Your task to perform on an android device: Show me popular videos on Youtube Image 0: 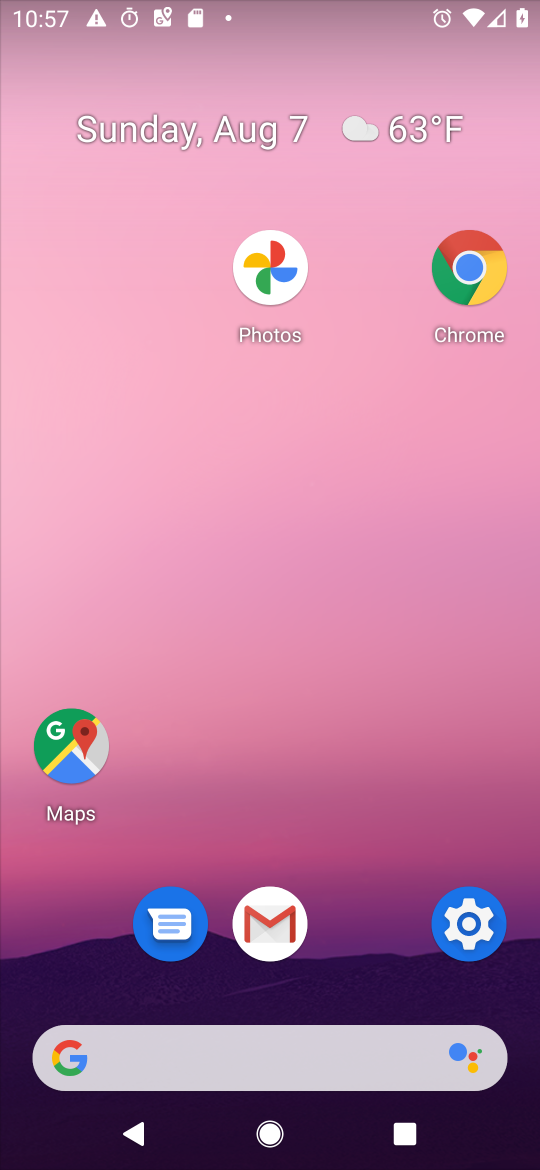
Step 0: press home button
Your task to perform on an android device: Show me popular videos on Youtube Image 1: 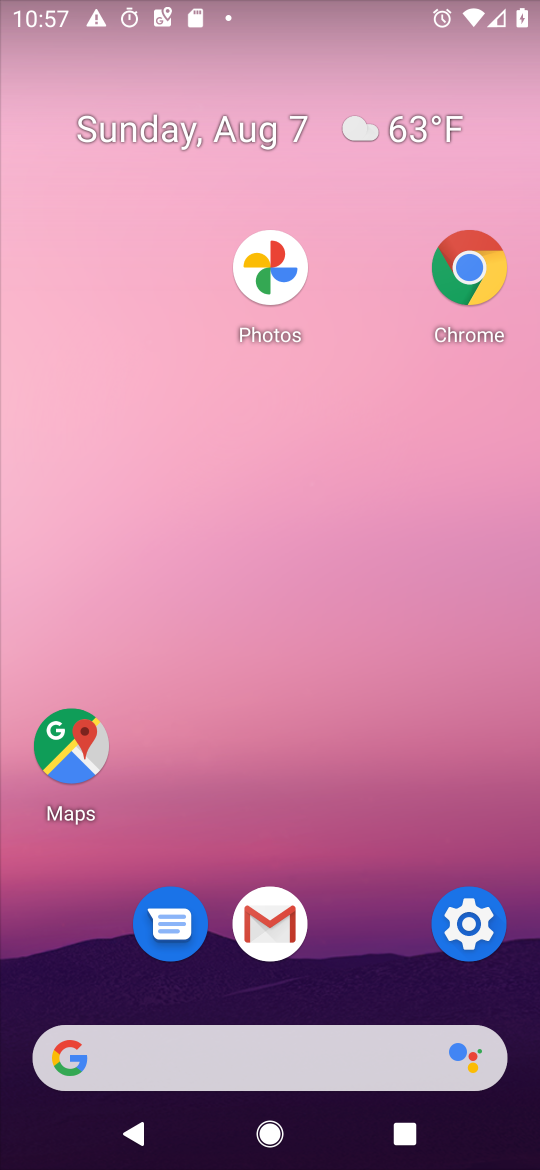
Step 1: drag from (294, 1058) to (192, 221)
Your task to perform on an android device: Show me popular videos on Youtube Image 2: 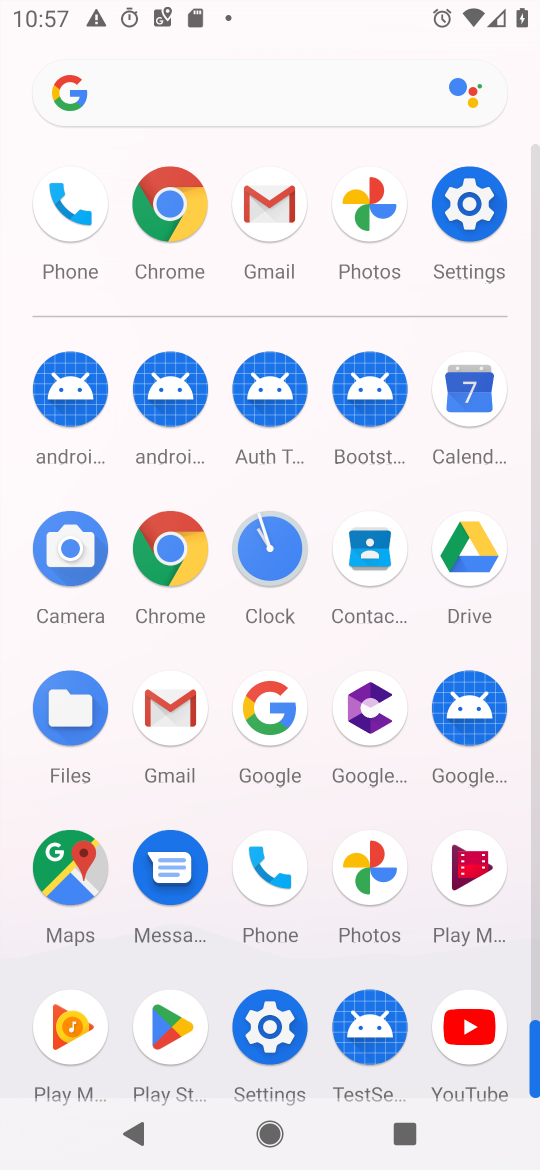
Step 2: click (464, 1022)
Your task to perform on an android device: Show me popular videos on Youtube Image 3: 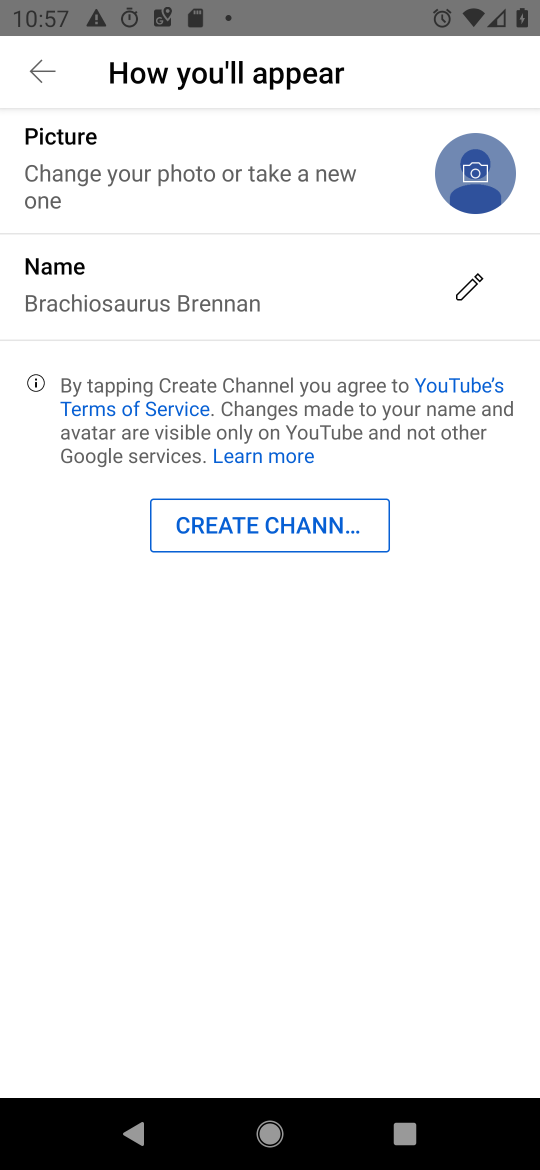
Step 3: click (33, 74)
Your task to perform on an android device: Show me popular videos on Youtube Image 4: 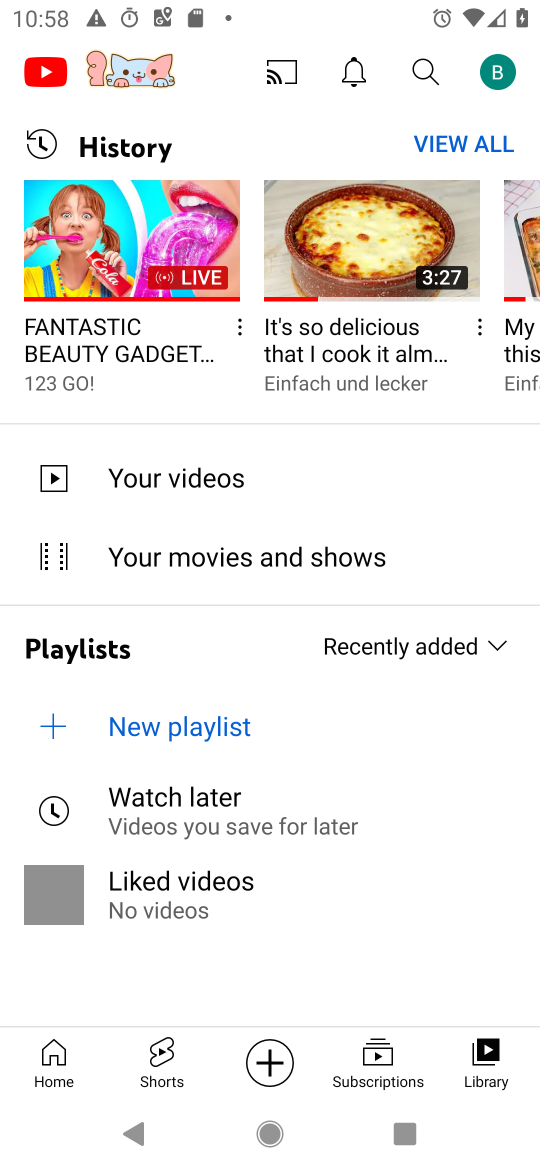
Step 4: click (413, 64)
Your task to perform on an android device: Show me popular videos on Youtube Image 5: 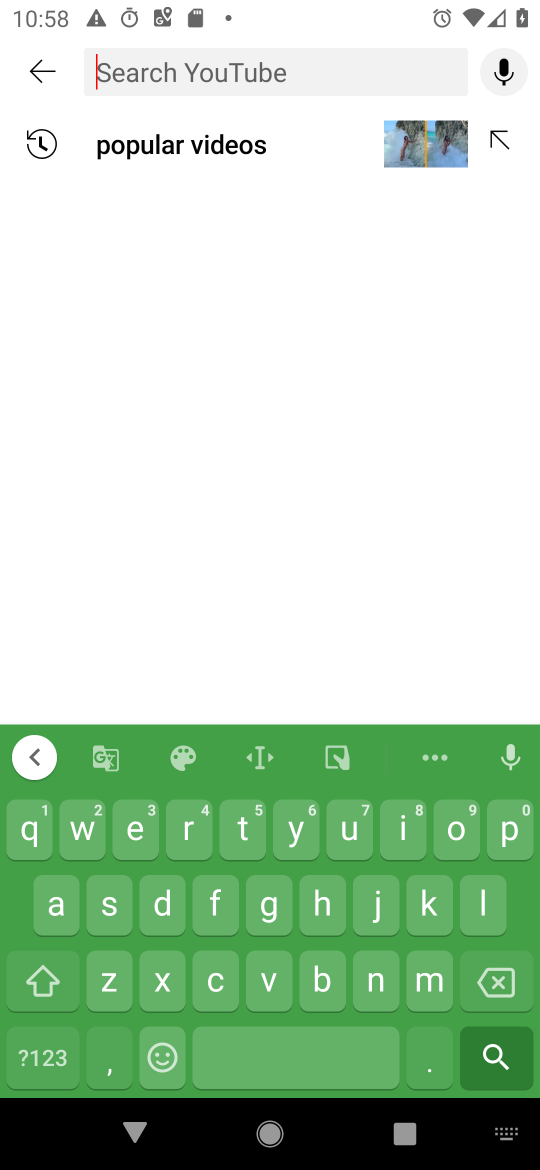
Step 5: click (261, 146)
Your task to perform on an android device: Show me popular videos on Youtube Image 6: 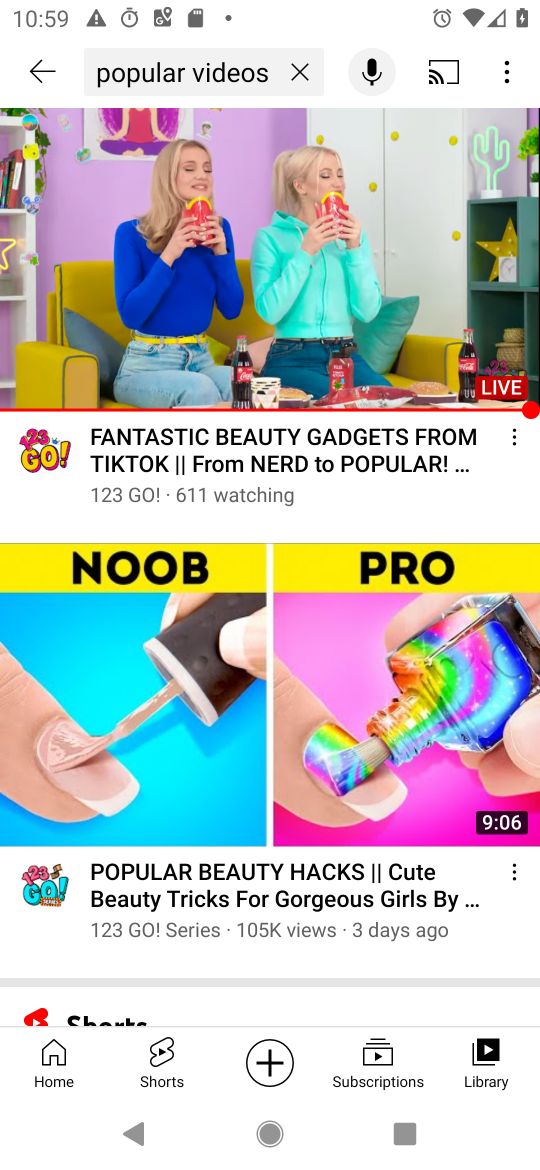
Step 6: task complete